Your task to perform on an android device: What's the weather today? Image 0: 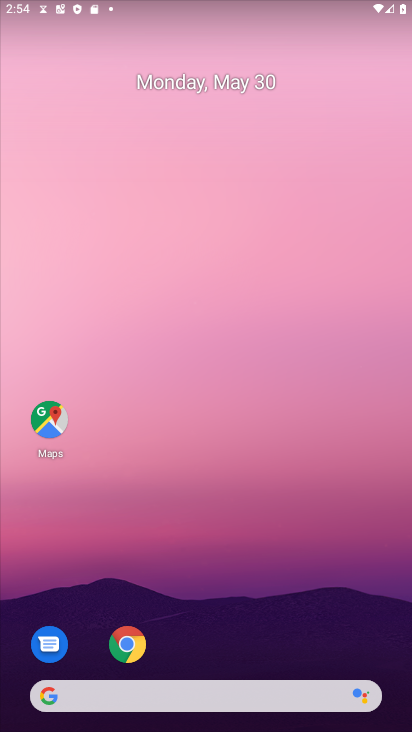
Step 0: click (238, 702)
Your task to perform on an android device: What's the weather today? Image 1: 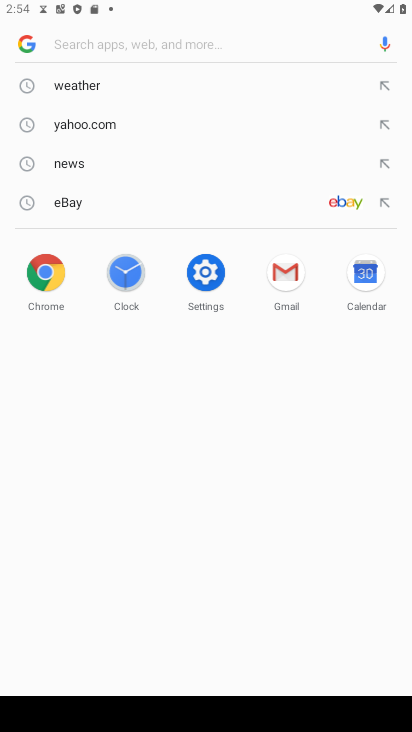
Step 1: type "weather today"
Your task to perform on an android device: What's the weather today? Image 2: 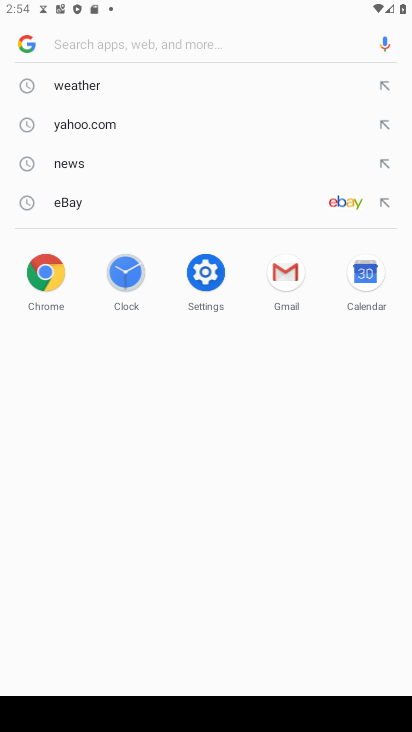
Step 2: click (196, 43)
Your task to perform on an android device: What's the weather today? Image 3: 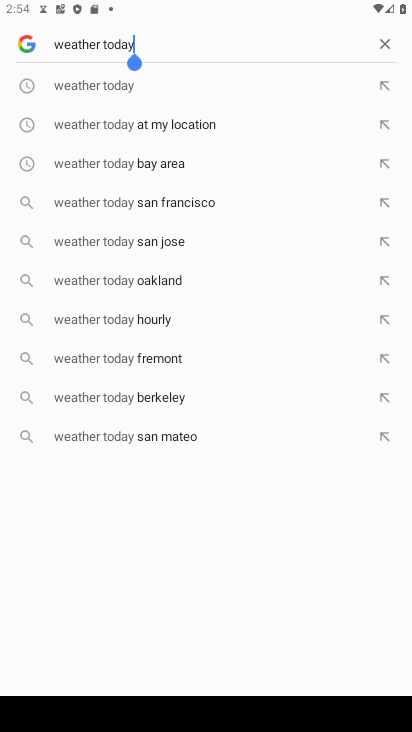
Step 3: click (63, 87)
Your task to perform on an android device: What's the weather today? Image 4: 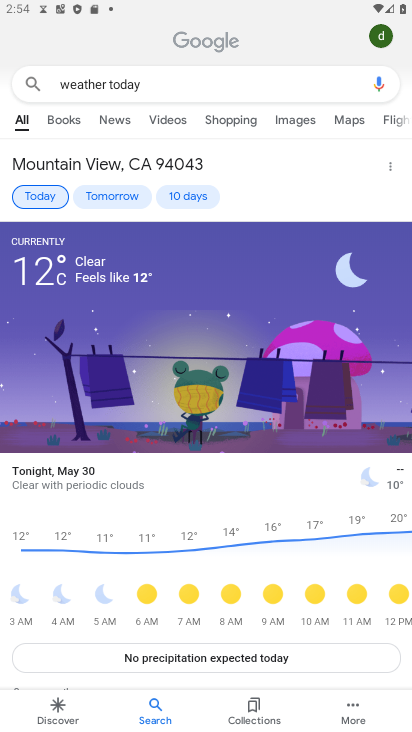
Step 4: task complete